Your task to perform on an android device: uninstall "DuckDuckGo Privacy Browser" Image 0: 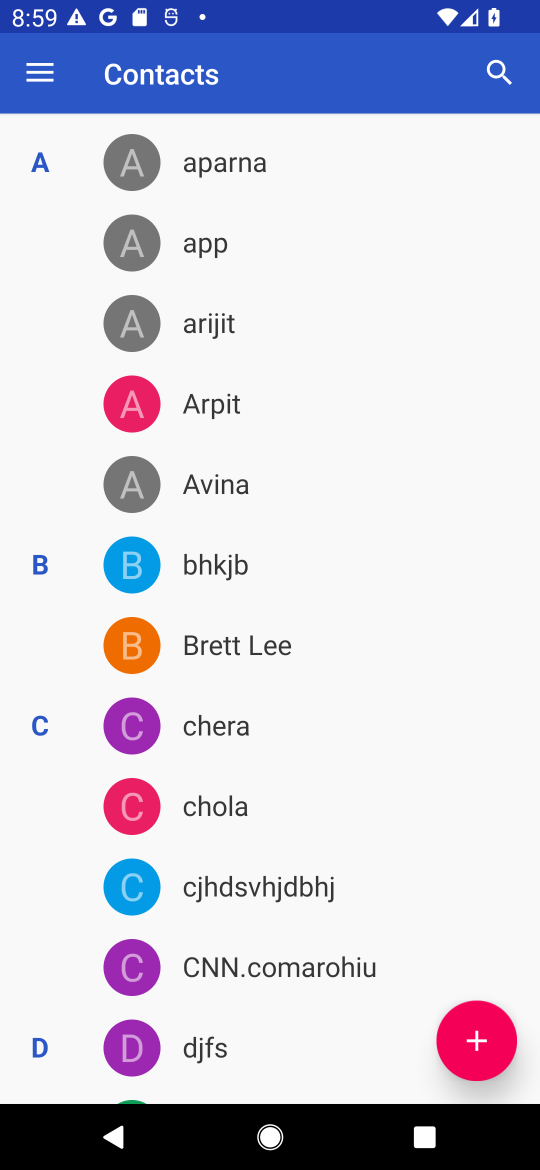
Step 0: press home button
Your task to perform on an android device: uninstall "DuckDuckGo Privacy Browser" Image 1: 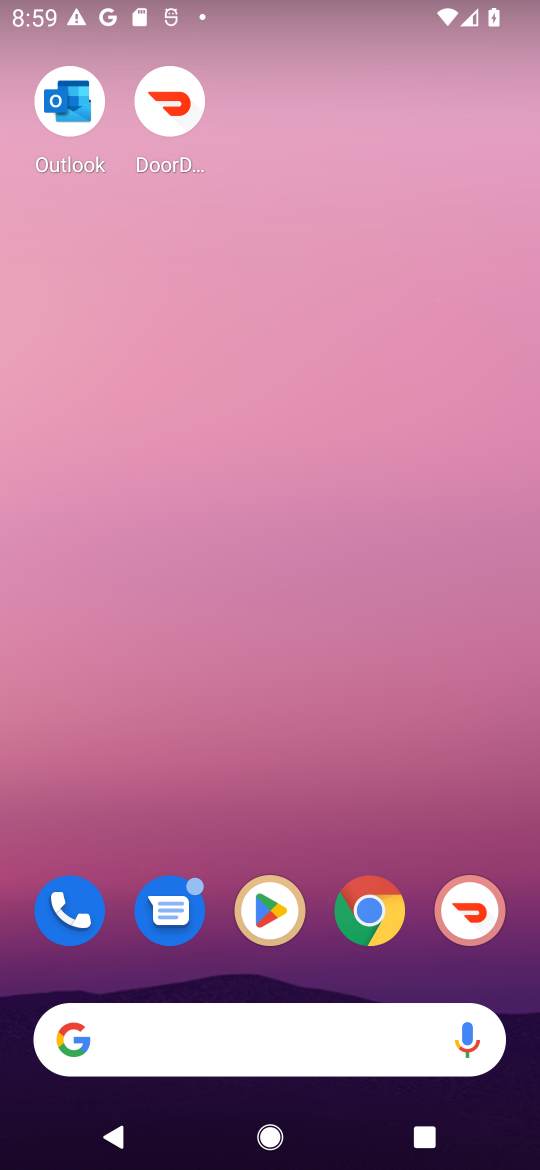
Step 1: click (286, 921)
Your task to perform on an android device: uninstall "DuckDuckGo Privacy Browser" Image 2: 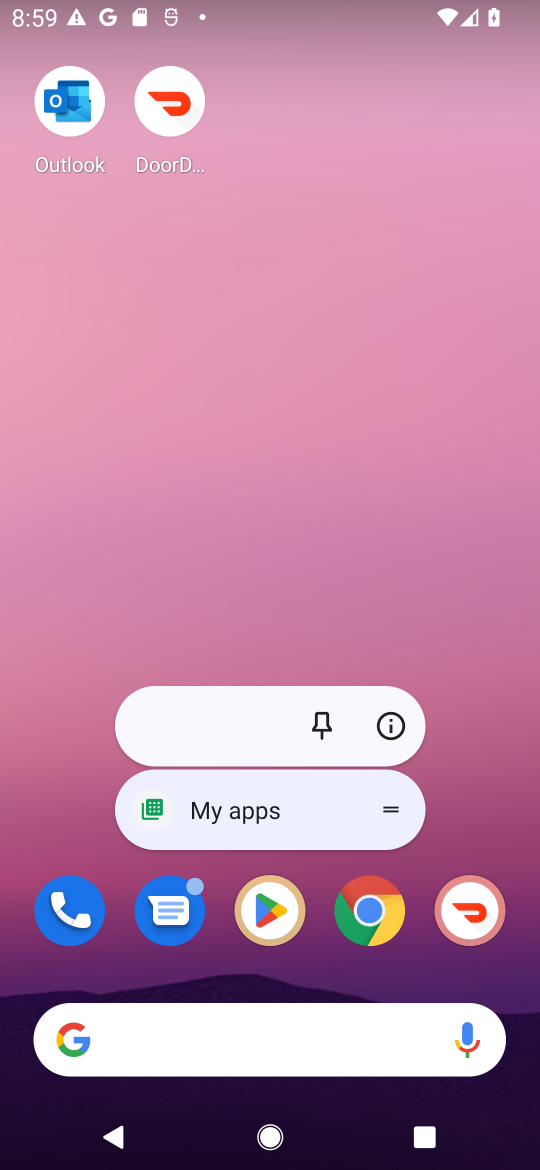
Step 2: click (267, 904)
Your task to perform on an android device: uninstall "DuckDuckGo Privacy Browser" Image 3: 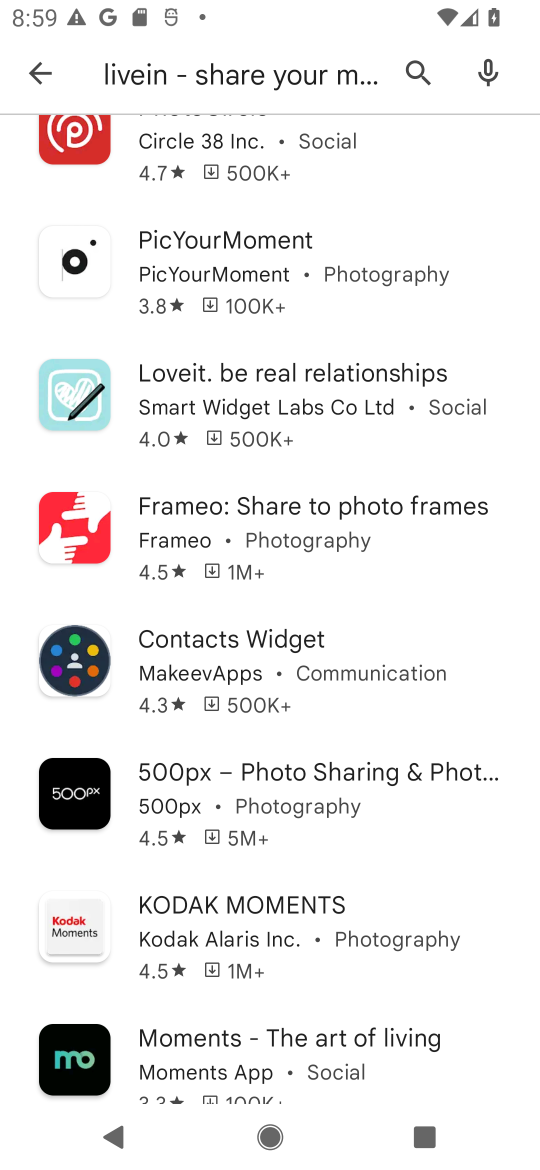
Step 3: click (411, 68)
Your task to perform on an android device: uninstall "DuckDuckGo Privacy Browser" Image 4: 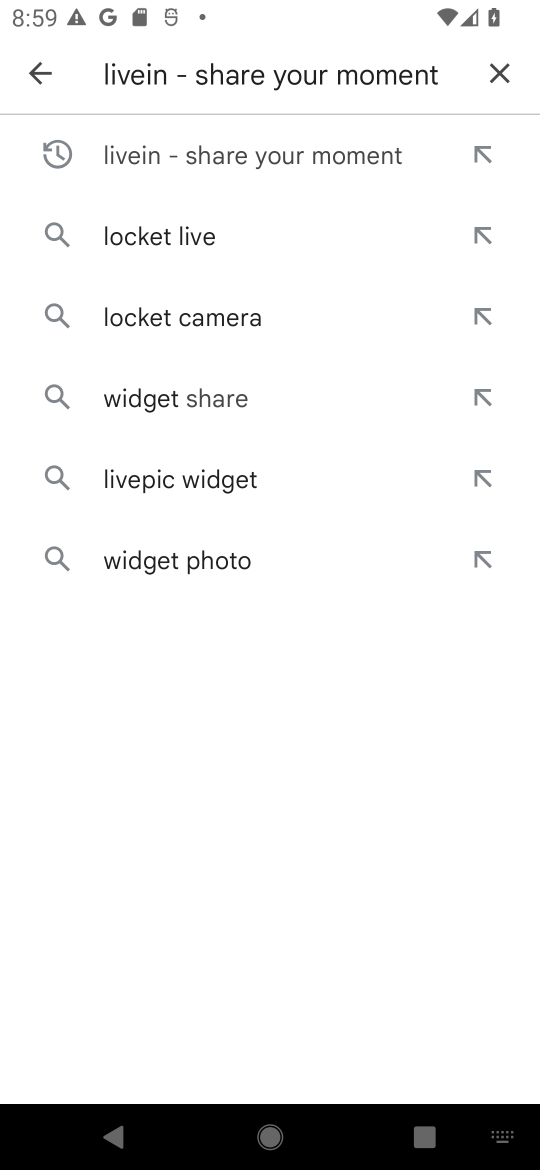
Step 4: click (492, 70)
Your task to perform on an android device: uninstall "DuckDuckGo Privacy Browser" Image 5: 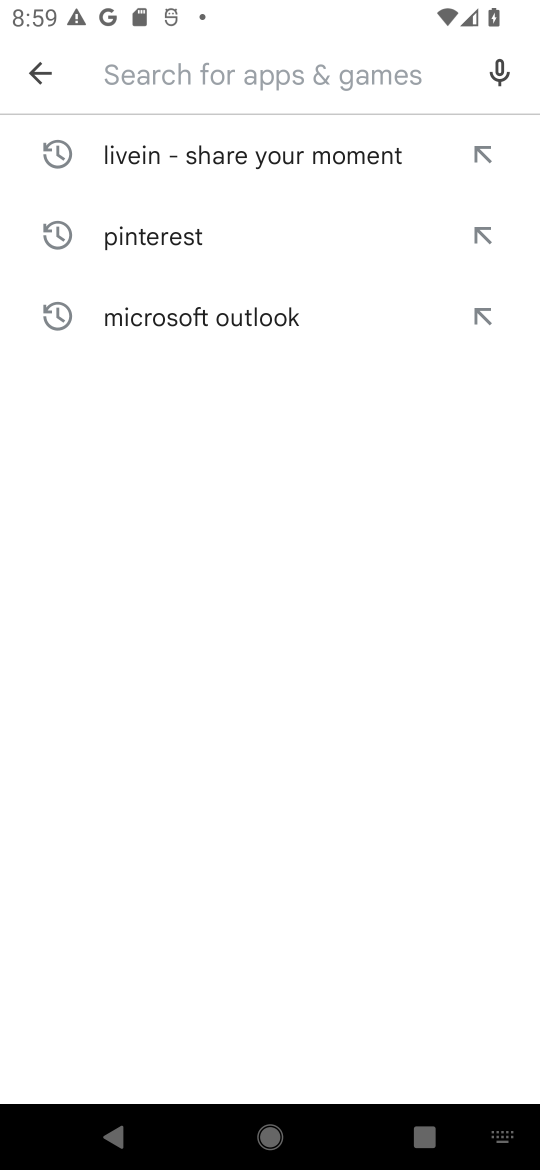
Step 5: type "DuckDuckGo Privacy Browser"
Your task to perform on an android device: uninstall "DuckDuckGo Privacy Browser" Image 6: 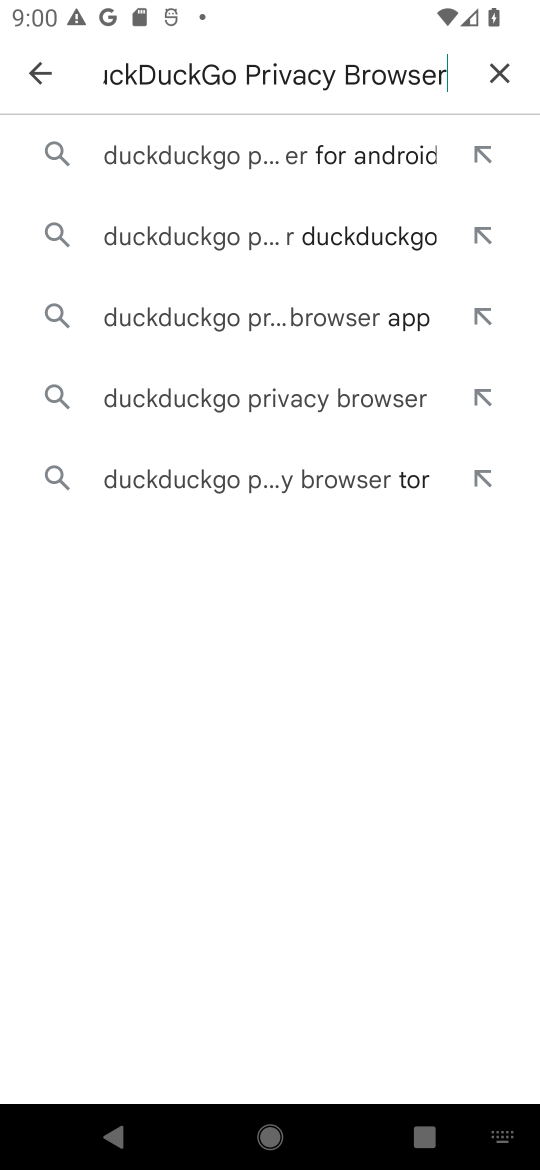
Step 6: click (276, 154)
Your task to perform on an android device: uninstall "DuckDuckGo Privacy Browser" Image 7: 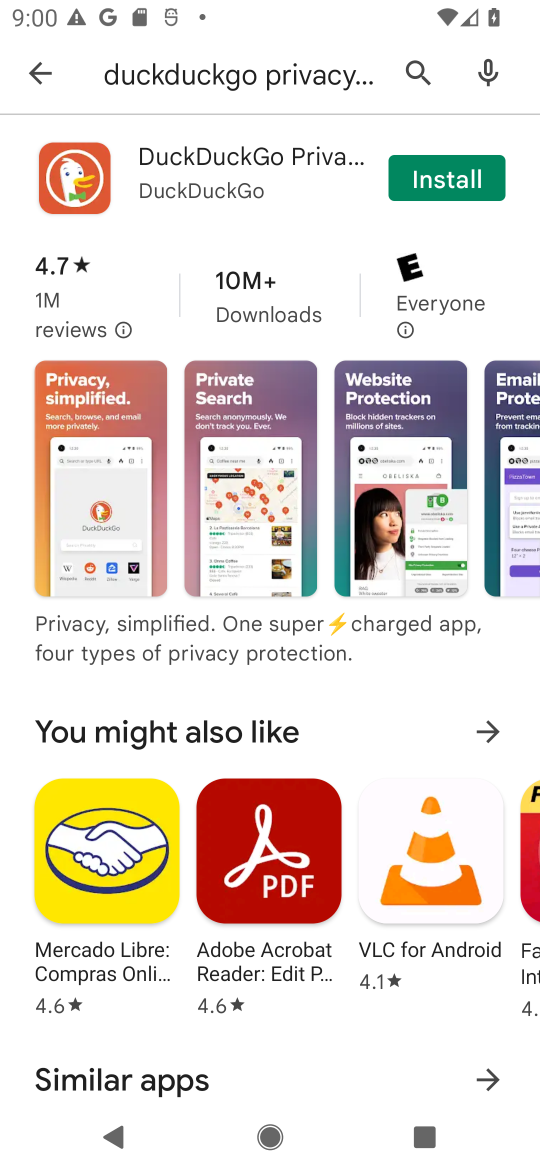
Step 7: task complete